Your task to perform on an android device: show emergency info Image 0: 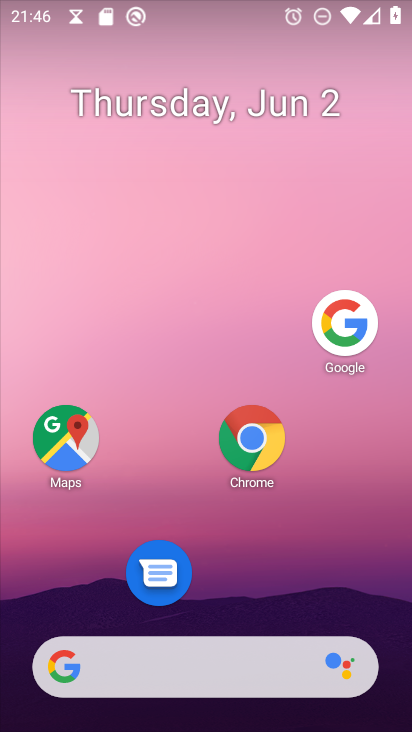
Step 0: press home button
Your task to perform on an android device: show emergency info Image 1: 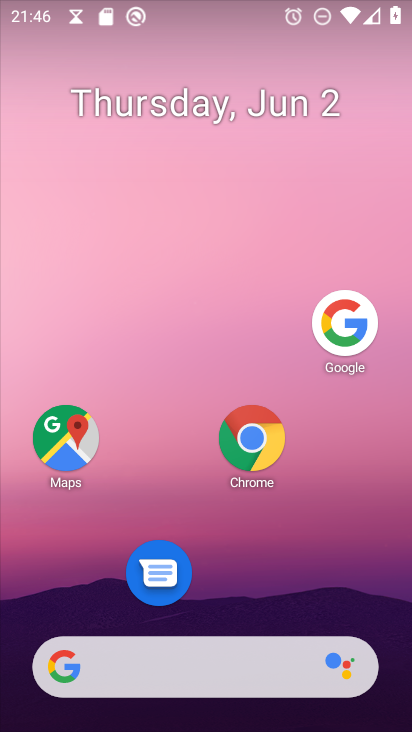
Step 1: drag from (167, 674) to (386, 15)
Your task to perform on an android device: show emergency info Image 2: 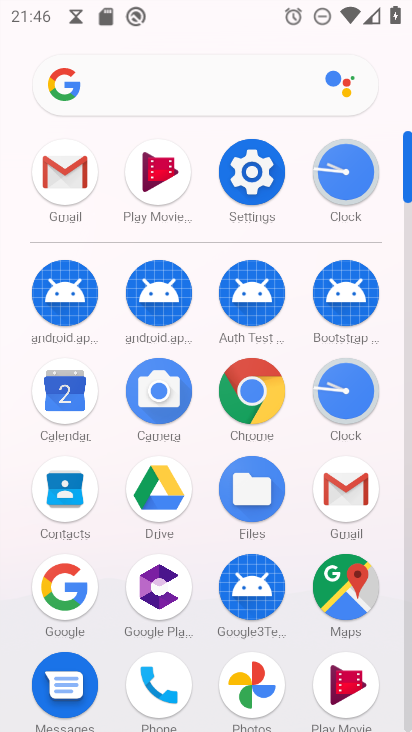
Step 2: click (247, 176)
Your task to perform on an android device: show emergency info Image 3: 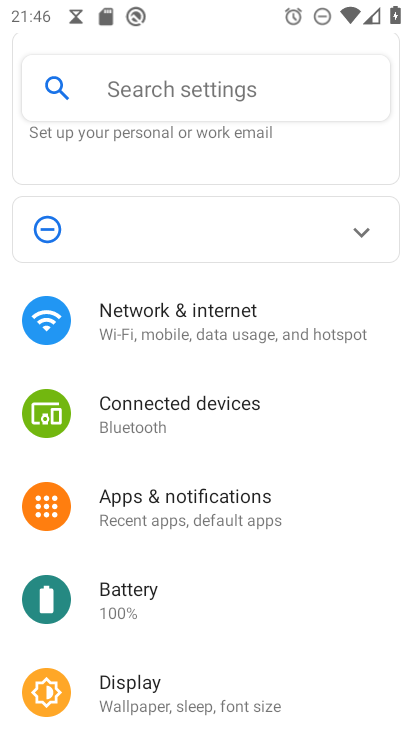
Step 3: drag from (228, 664) to (389, 14)
Your task to perform on an android device: show emergency info Image 4: 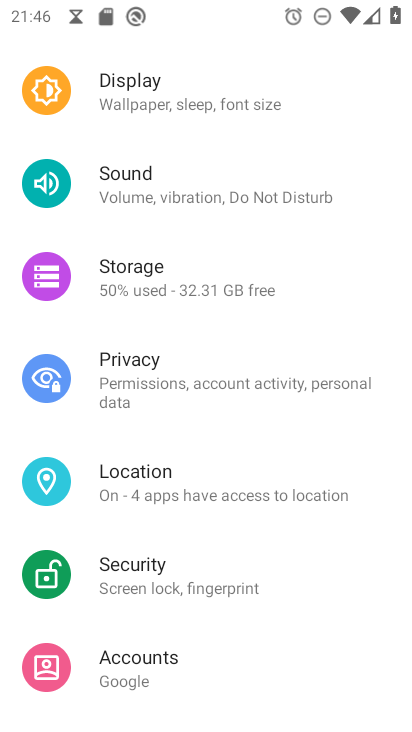
Step 4: drag from (233, 681) to (347, 87)
Your task to perform on an android device: show emergency info Image 5: 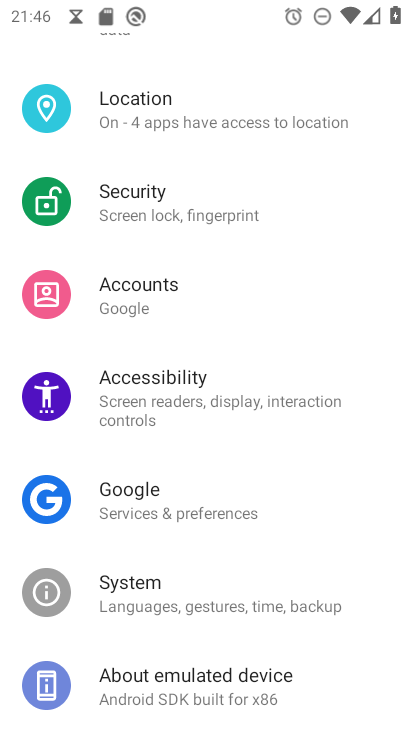
Step 5: click (197, 694)
Your task to perform on an android device: show emergency info Image 6: 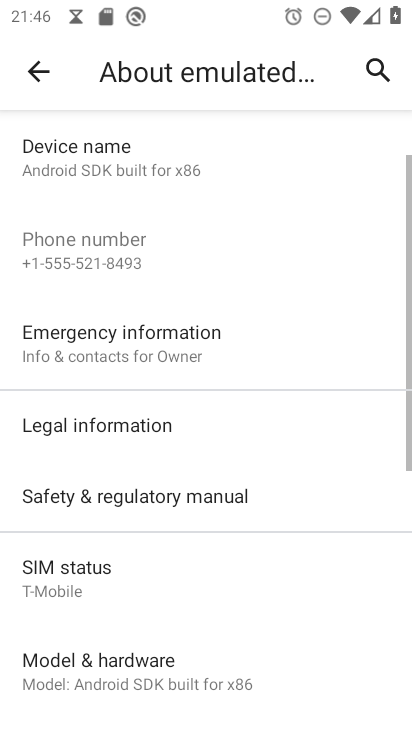
Step 6: click (153, 338)
Your task to perform on an android device: show emergency info Image 7: 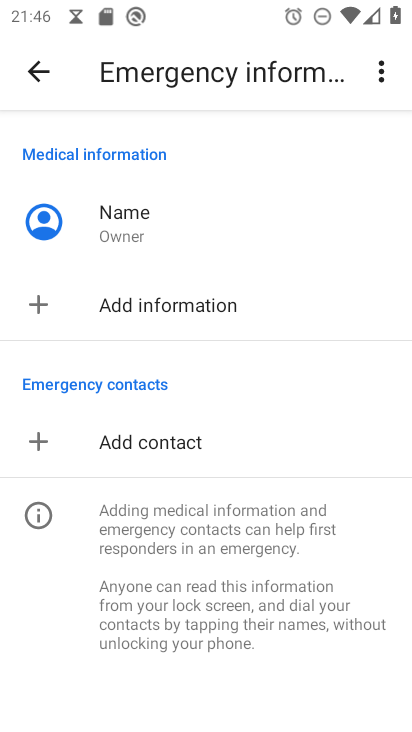
Step 7: task complete